Your task to perform on an android device: Search for vegetarian restaurants on Maps Image 0: 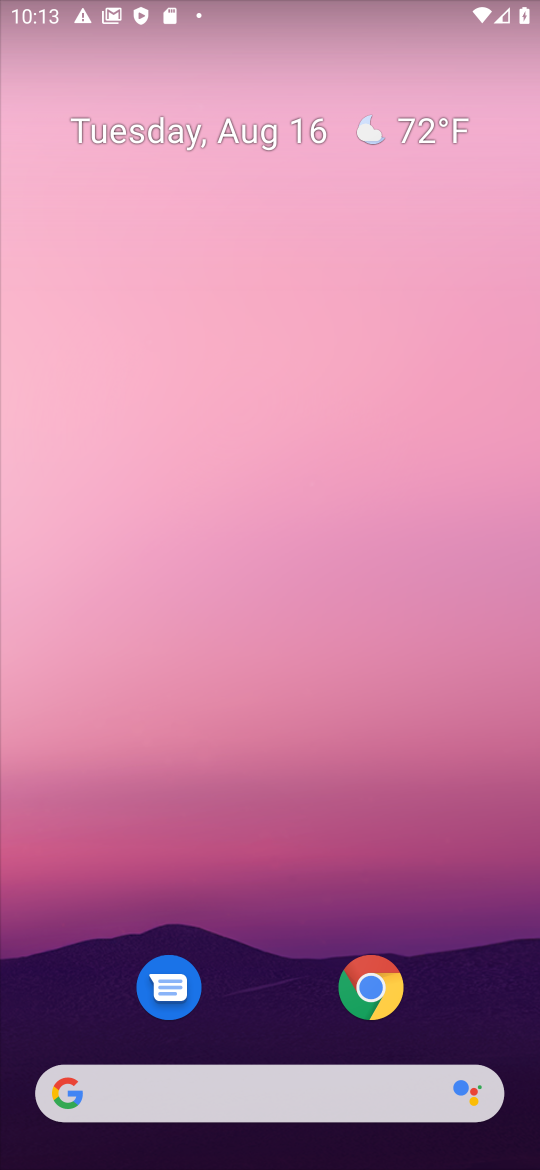
Step 0: click (27, 1130)
Your task to perform on an android device: Search for vegetarian restaurants on Maps Image 1: 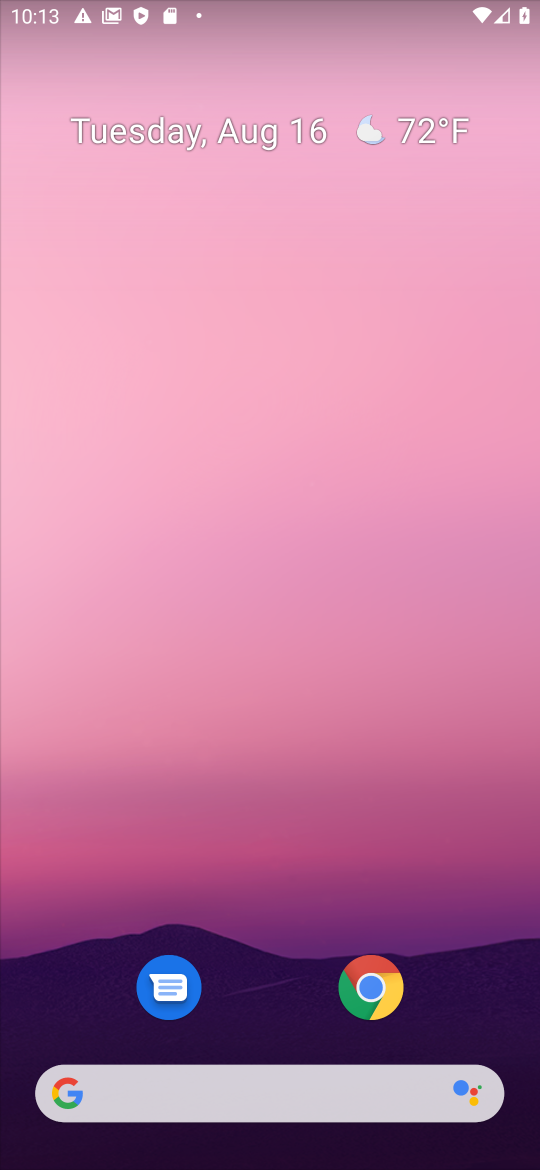
Step 1: drag from (30, 917) to (130, 621)
Your task to perform on an android device: Search for vegetarian restaurants on Maps Image 2: 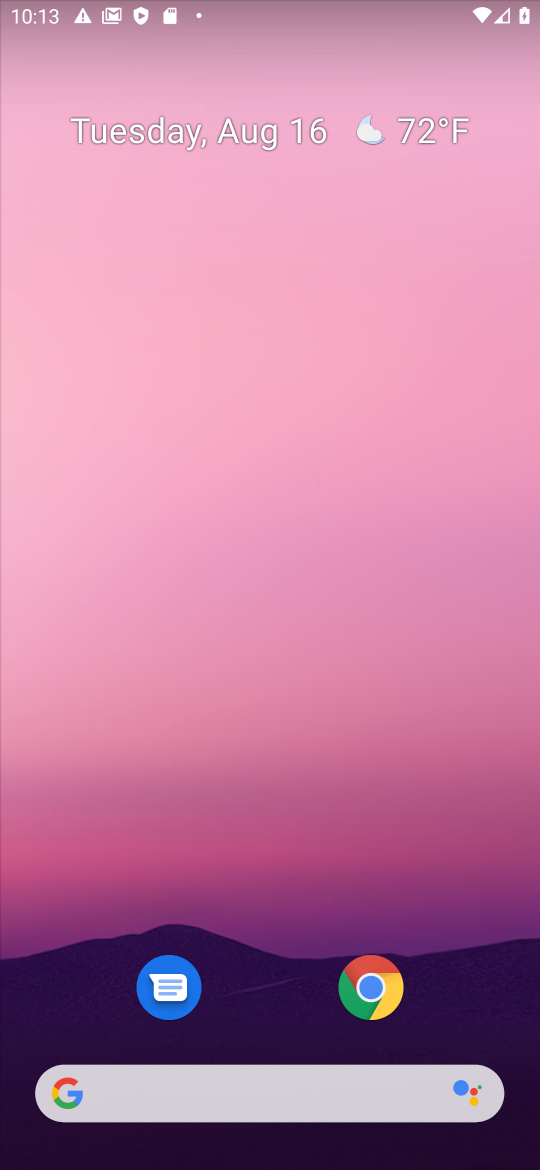
Step 2: drag from (14, 1098) to (110, 248)
Your task to perform on an android device: Search for vegetarian restaurants on Maps Image 3: 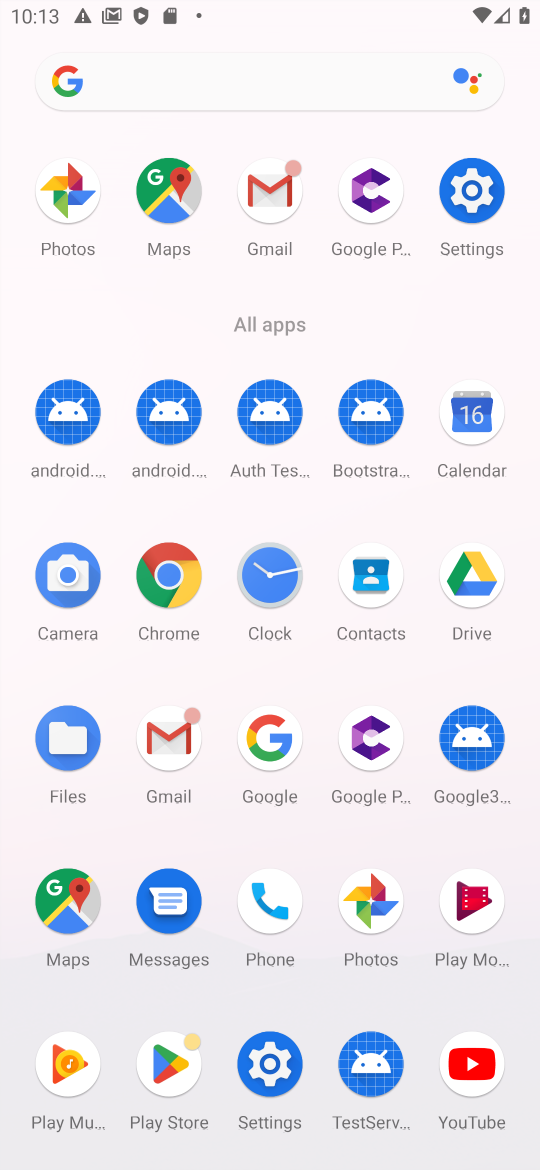
Step 3: click (73, 898)
Your task to perform on an android device: Search for vegetarian restaurants on Maps Image 4: 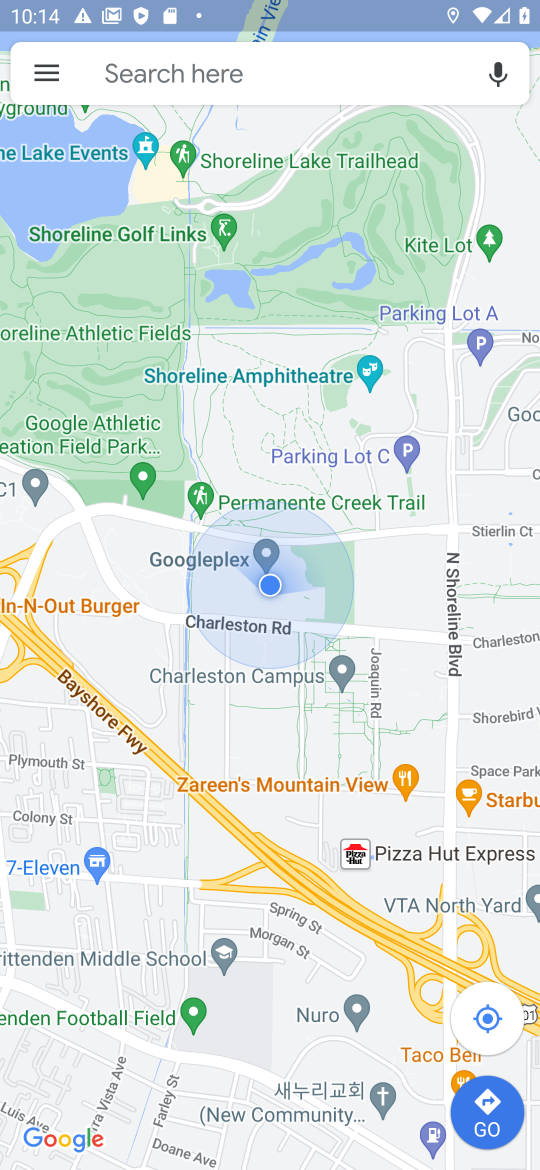
Step 4: click (124, 69)
Your task to perform on an android device: Search for vegetarian restaurants on Maps Image 5: 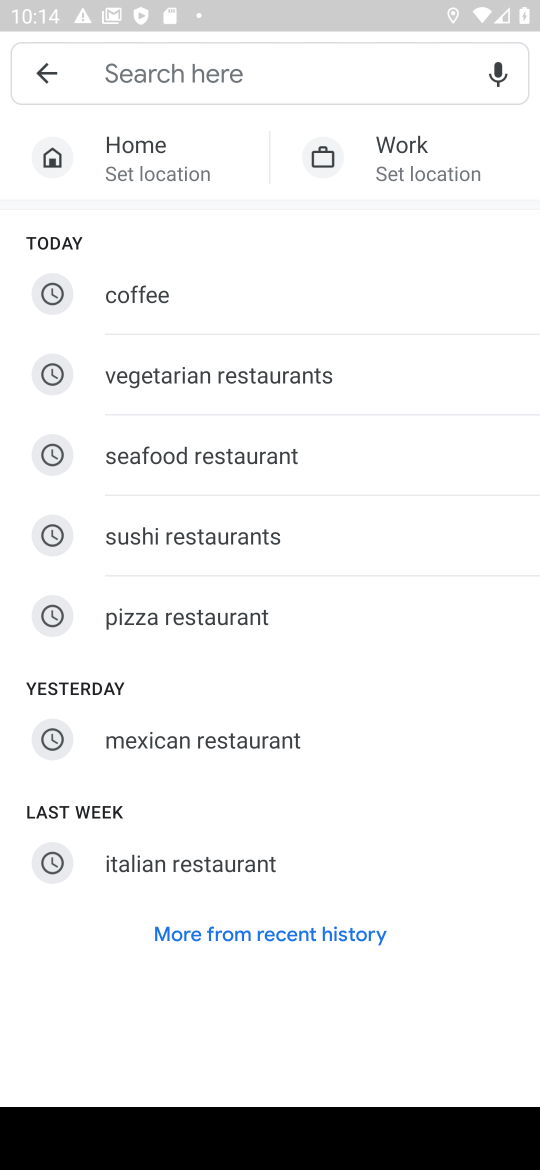
Step 5: click (155, 377)
Your task to perform on an android device: Search for vegetarian restaurants on Maps Image 6: 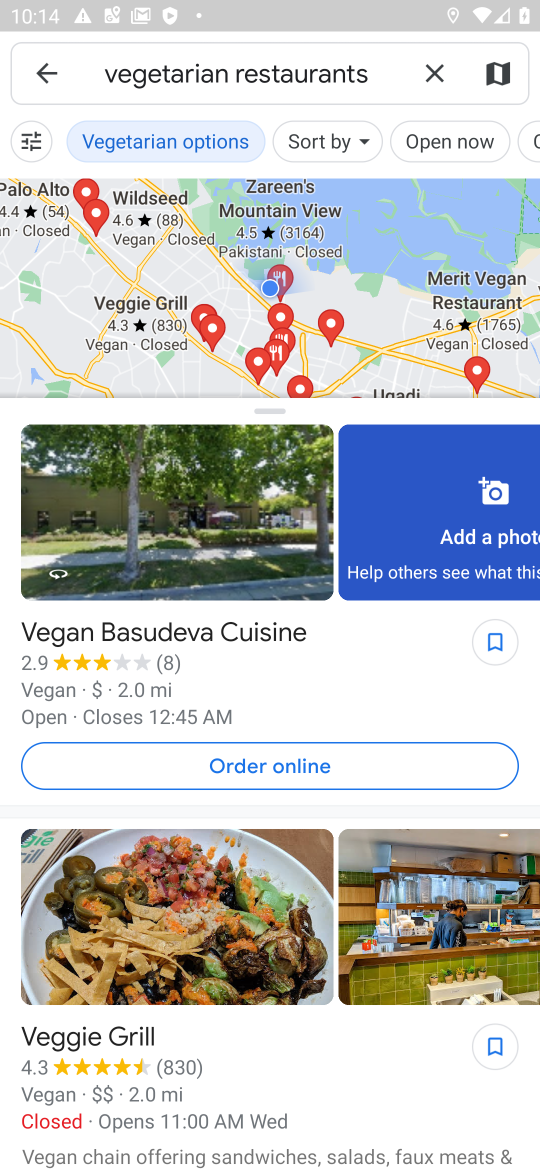
Step 6: task complete